Your task to perform on an android device: all mails in gmail Image 0: 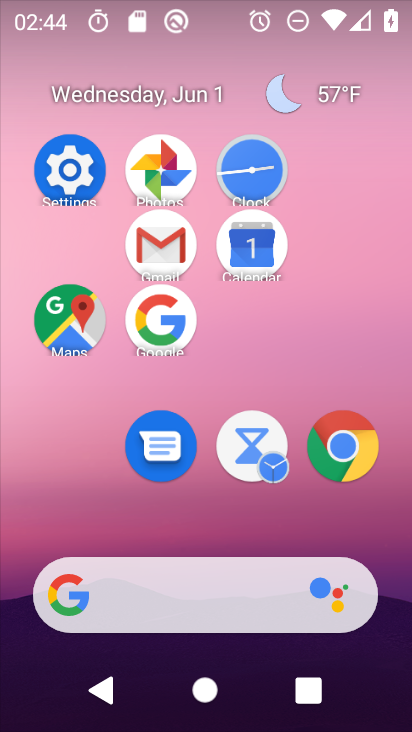
Step 0: click (171, 253)
Your task to perform on an android device: all mails in gmail Image 1: 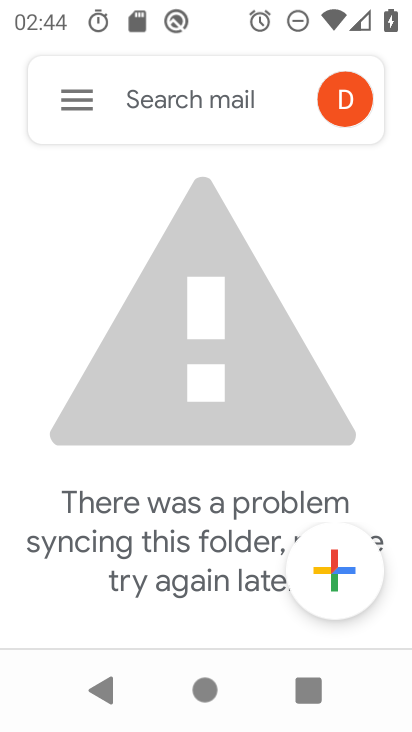
Step 1: click (81, 91)
Your task to perform on an android device: all mails in gmail Image 2: 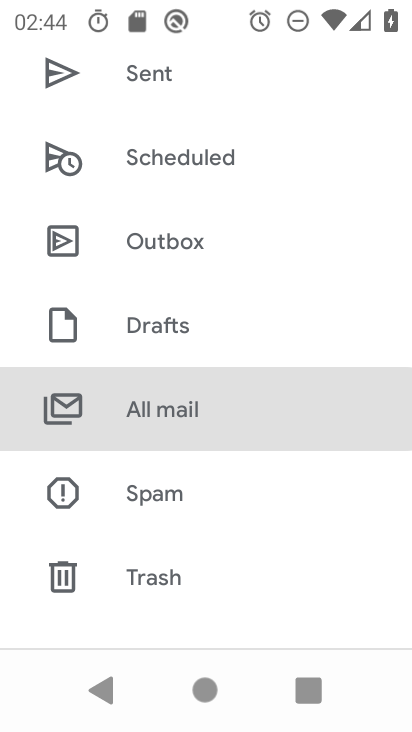
Step 2: click (208, 404)
Your task to perform on an android device: all mails in gmail Image 3: 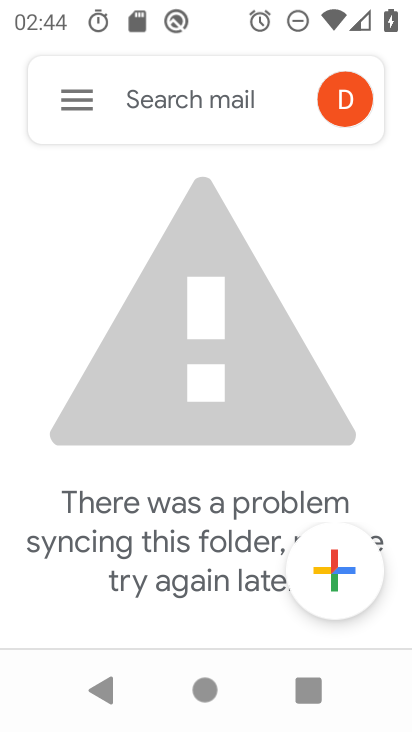
Step 3: task complete